Your task to perform on an android device: turn off location Image 0: 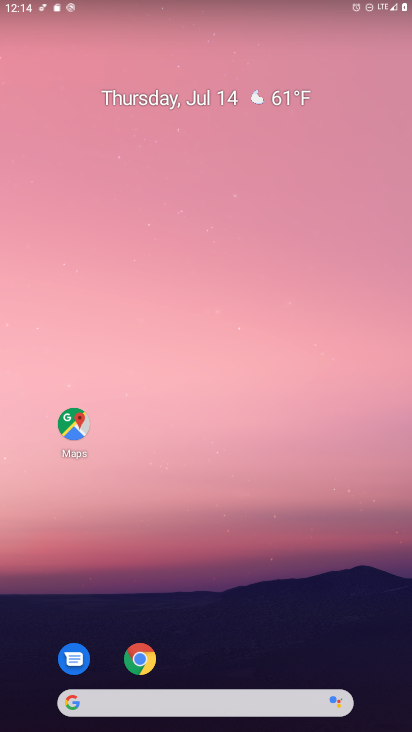
Step 0: drag from (376, 647) to (338, 140)
Your task to perform on an android device: turn off location Image 1: 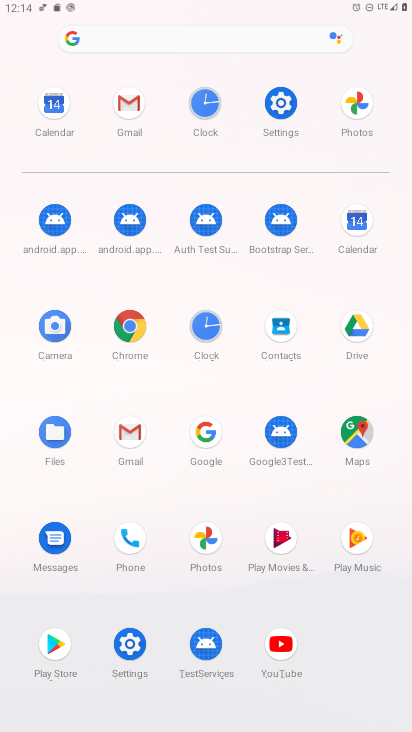
Step 1: click (131, 642)
Your task to perform on an android device: turn off location Image 2: 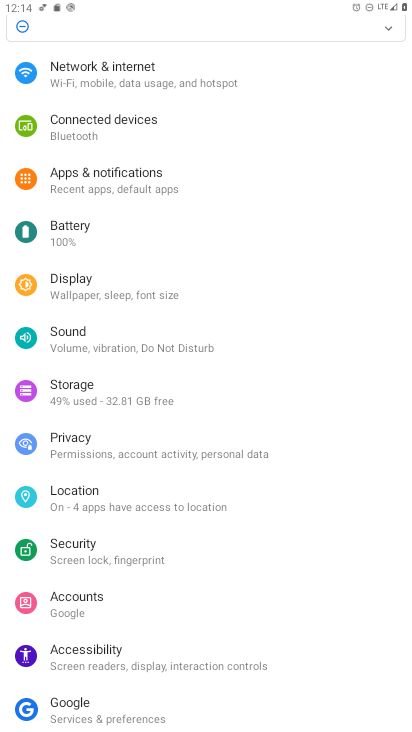
Step 2: click (75, 502)
Your task to perform on an android device: turn off location Image 3: 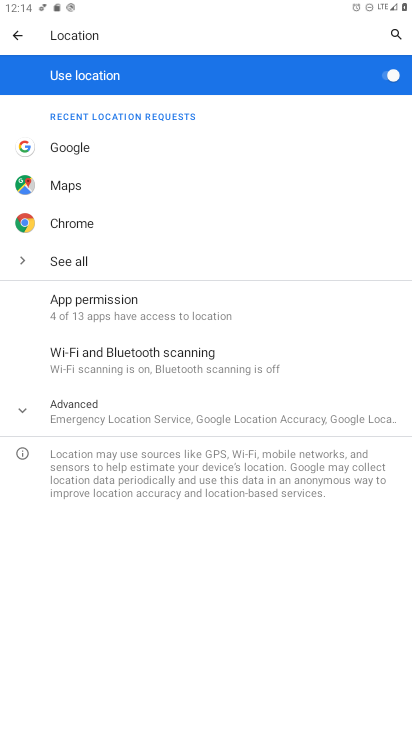
Step 3: click (384, 74)
Your task to perform on an android device: turn off location Image 4: 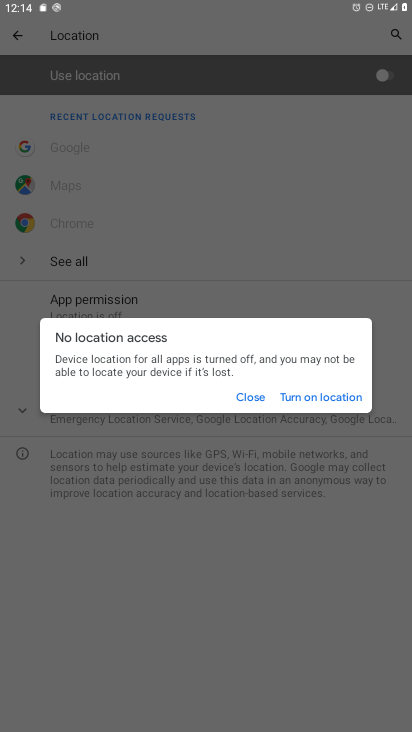
Step 4: click (247, 398)
Your task to perform on an android device: turn off location Image 5: 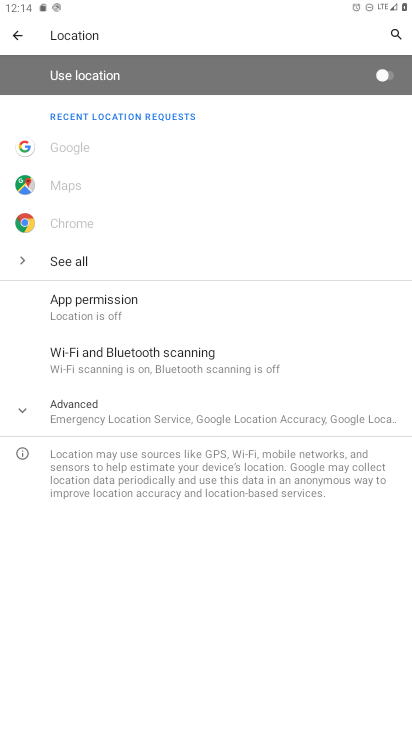
Step 5: task complete